Your task to perform on an android device: Show me popular games on the Play Store Image 0: 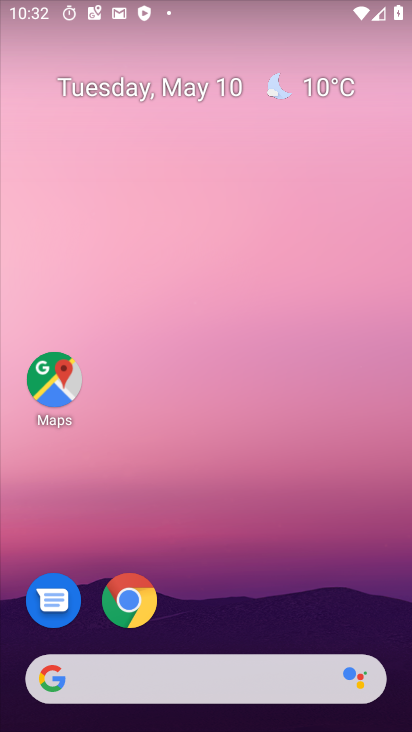
Step 0: drag from (248, 550) to (226, 40)
Your task to perform on an android device: Show me popular games on the Play Store Image 1: 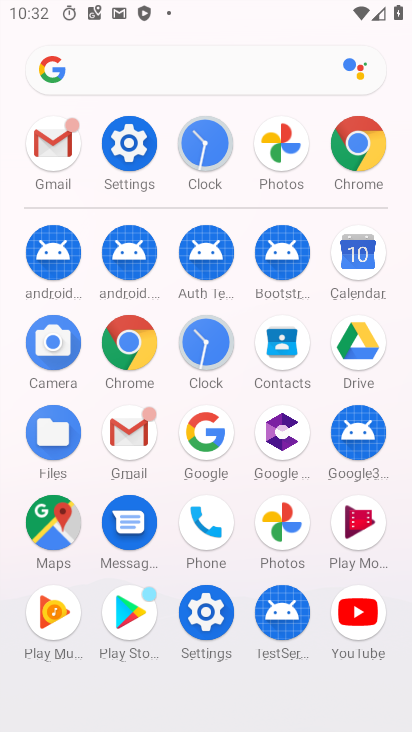
Step 1: drag from (6, 572) to (6, 226)
Your task to perform on an android device: Show me popular games on the Play Store Image 2: 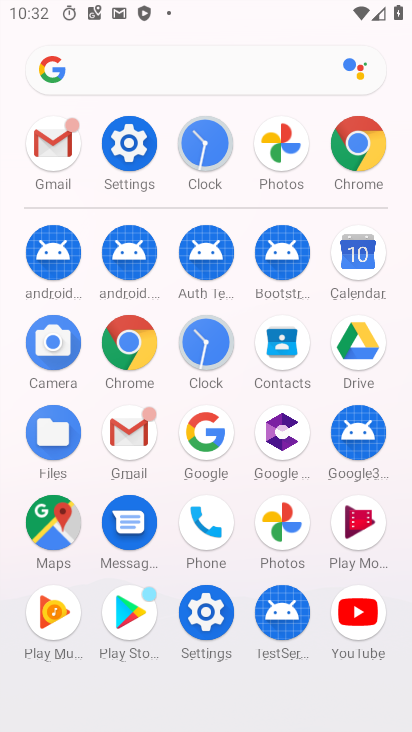
Step 2: click (117, 602)
Your task to perform on an android device: Show me popular games on the Play Store Image 3: 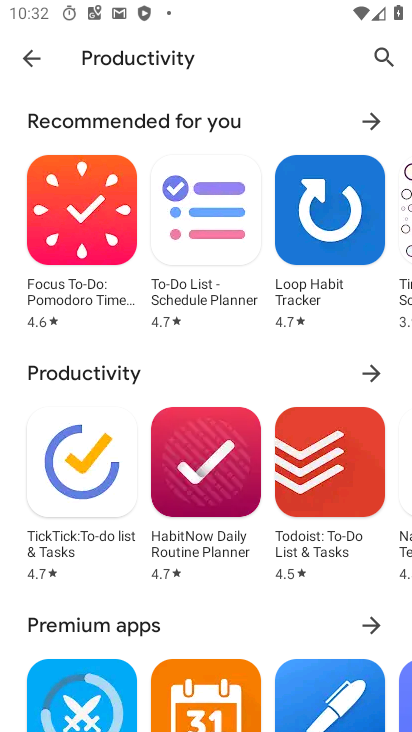
Step 3: drag from (209, 266) to (221, 543)
Your task to perform on an android device: Show me popular games on the Play Store Image 4: 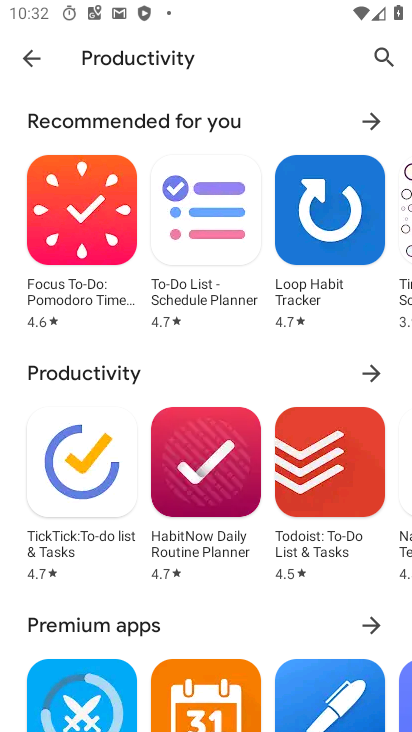
Step 4: click (26, 45)
Your task to perform on an android device: Show me popular games on the Play Store Image 5: 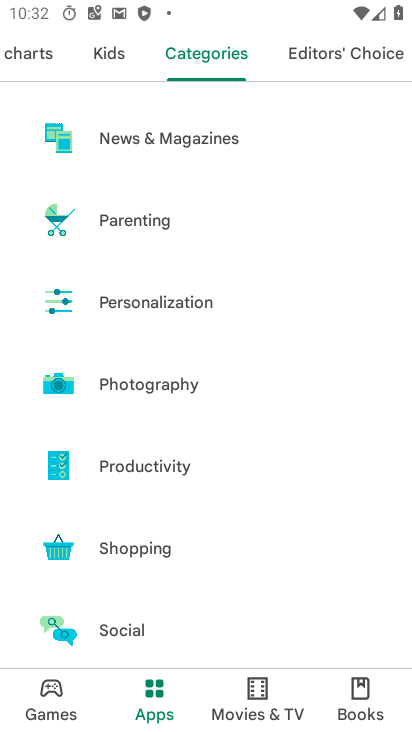
Step 5: click (33, 727)
Your task to perform on an android device: Show me popular games on the Play Store Image 6: 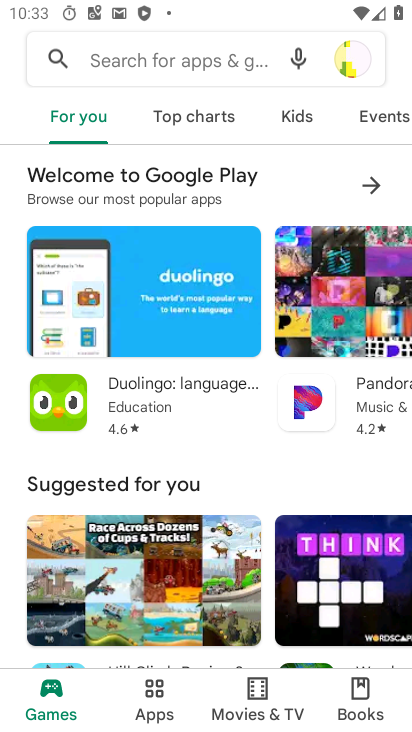
Step 6: task complete